Your task to perform on an android device: Open settings Image 0: 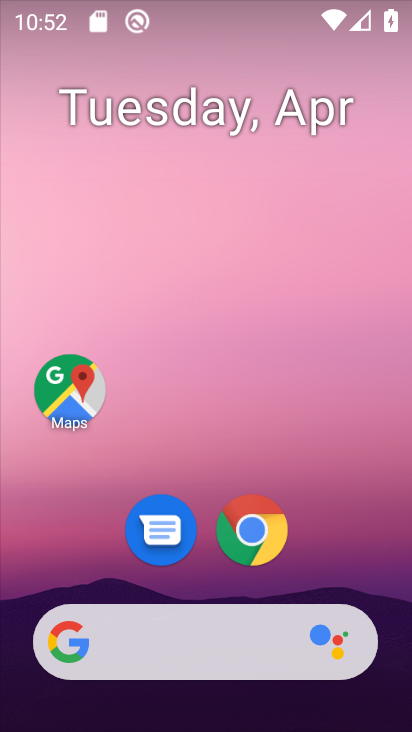
Step 0: drag from (165, 646) to (348, 5)
Your task to perform on an android device: Open settings Image 1: 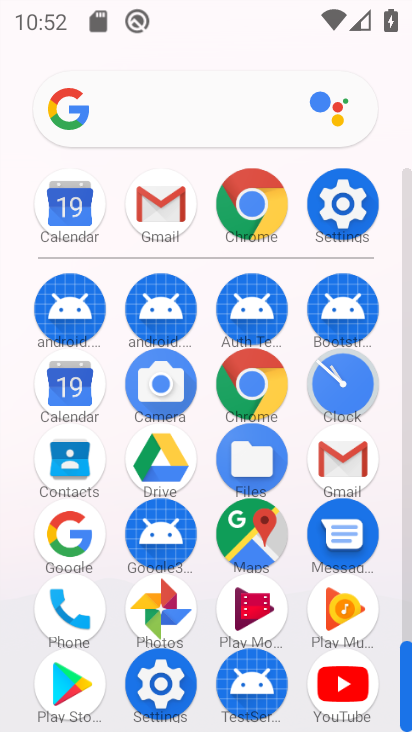
Step 1: click (329, 218)
Your task to perform on an android device: Open settings Image 2: 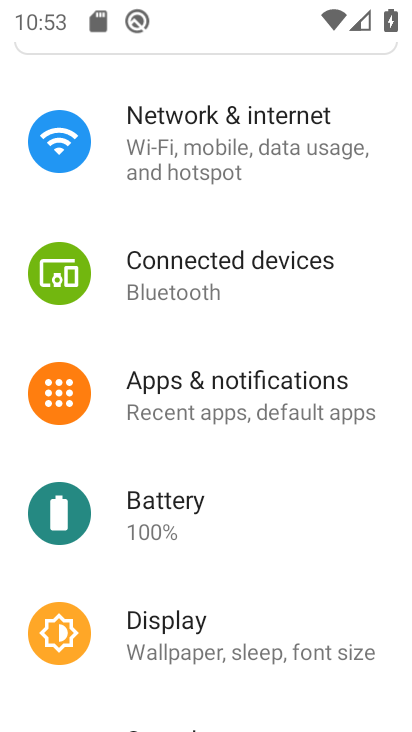
Step 2: task complete